Your task to perform on an android device: check battery use Image 0: 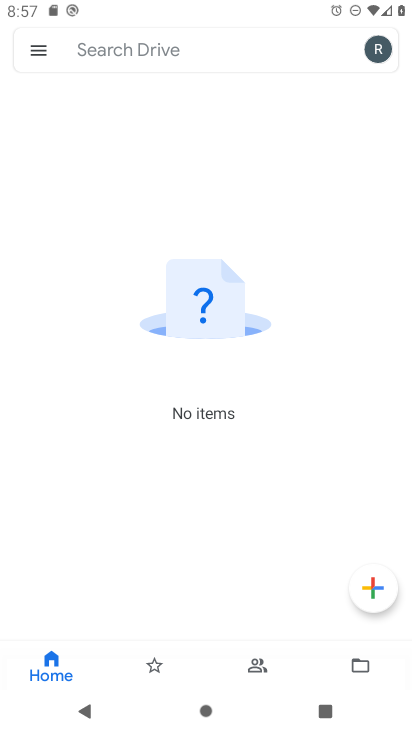
Step 0: press home button
Your task to perform on an android device: check battery use Image 1: 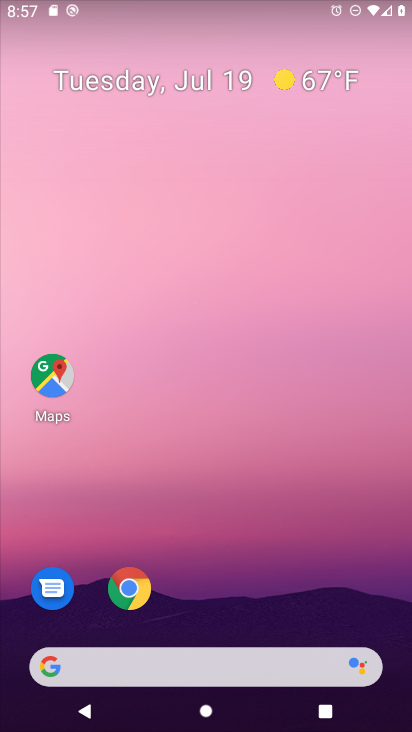
Step 1: drag from (334, 584) to (351, 83)
Your task to perform on an android device: check battery use Image 2: 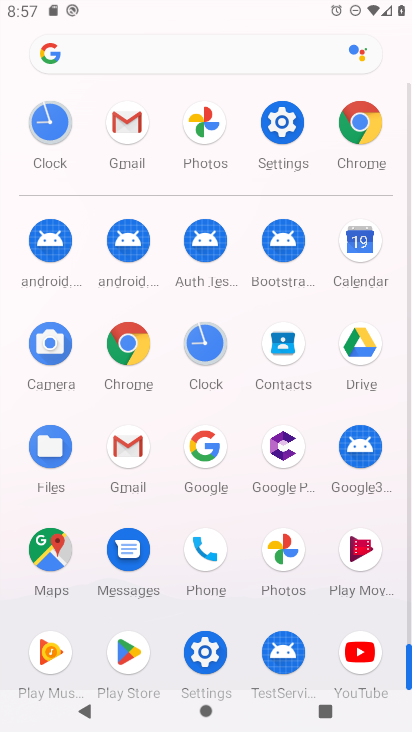
Step 2: click (290, 132)
Your task to perform on an android device: check battery use Image 3: 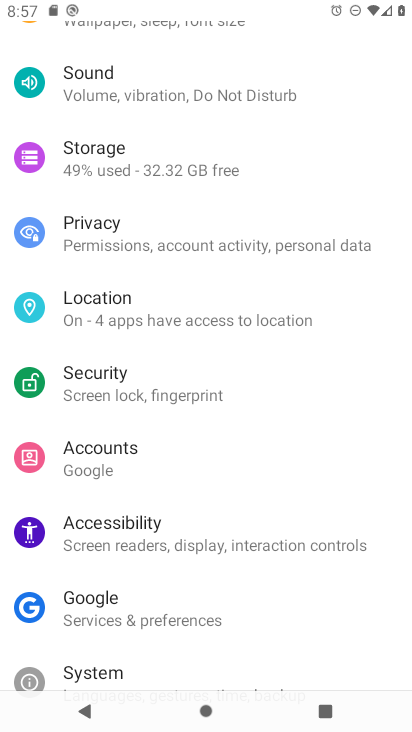
Step 3: drag from (365, 305) to (365, 393)
Your task to perform on an android device: check battery use Image 4: 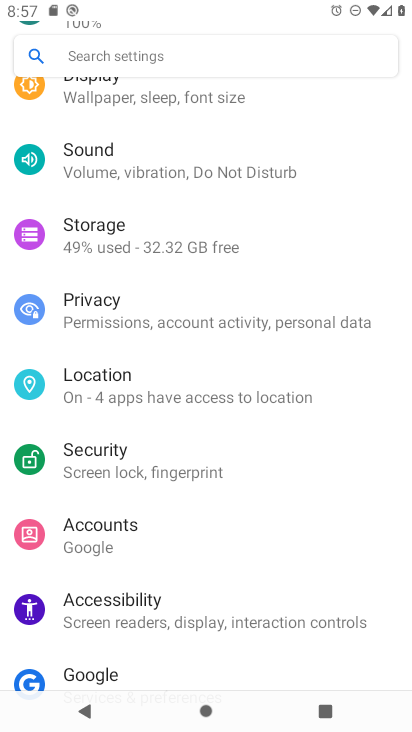
Step 4: drag from (369, 276) to (368, 402)
Your task to perform on an android device: check battery use Image 5: 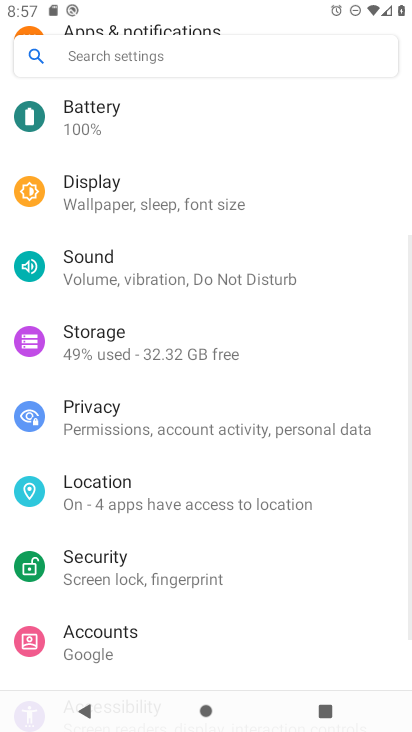
Step 5: drag from (372, 283) to (369, 395)
Your task to perform on an android device: check battery use Image 6: 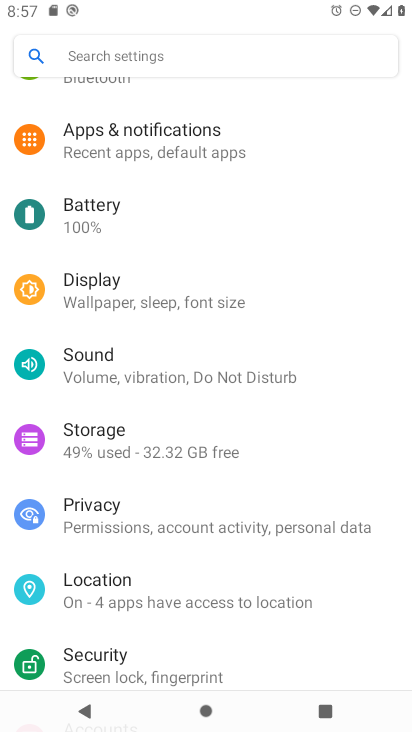
Step 6: drag from (356, 268) to (347, 402)
Your task to perform on an android device: check battery use Image 7: 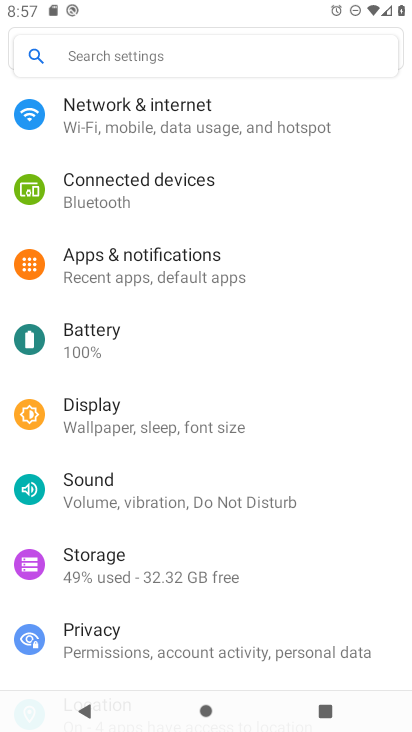
Step 7: drag from (338, 273) to (338, 436)
Your task to perform on an android device: check battery use Image 8: 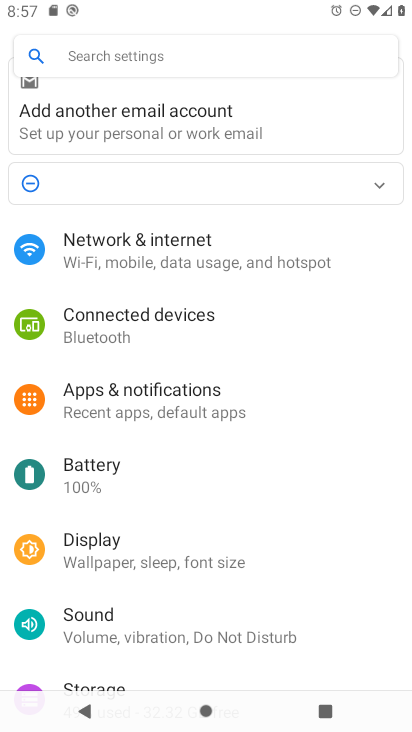
Step 8: click (172, 499)
Your task to perform on an android device: check battery use Image 9: 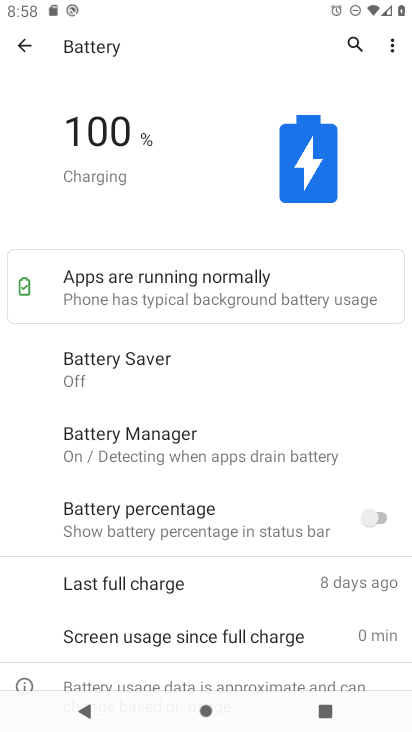
Step 9: click (391, 48)
Your task to perform on an android device: check battery use Image 10: 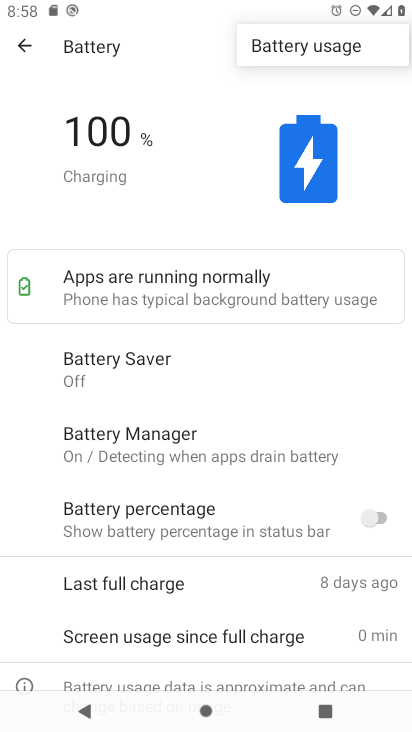
Step 10: click (347, 48)
Your task to perform on an android device: check battery use Image 11: 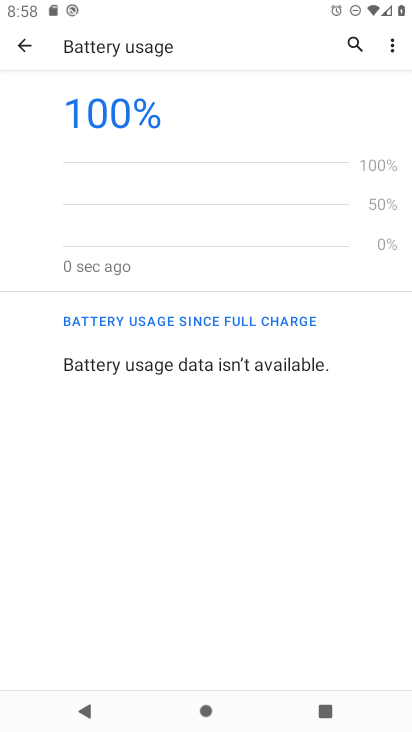
Step 11: task complete